Your task to perform on an android device: Go to Maps Image 0: 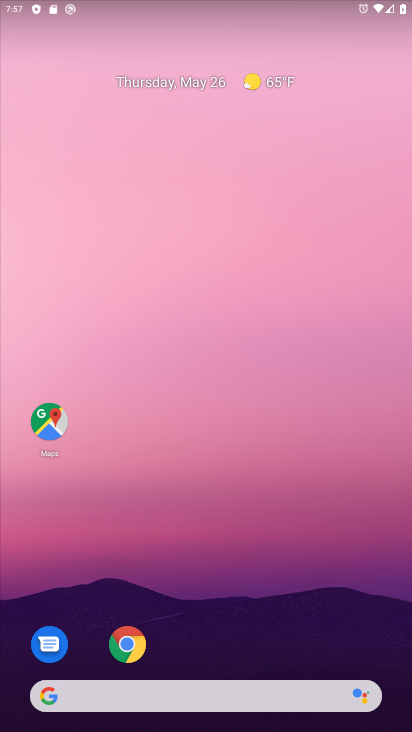
Step 0: click (228, 111)
Your task to perform on an android device: Go to Maps Image 1: 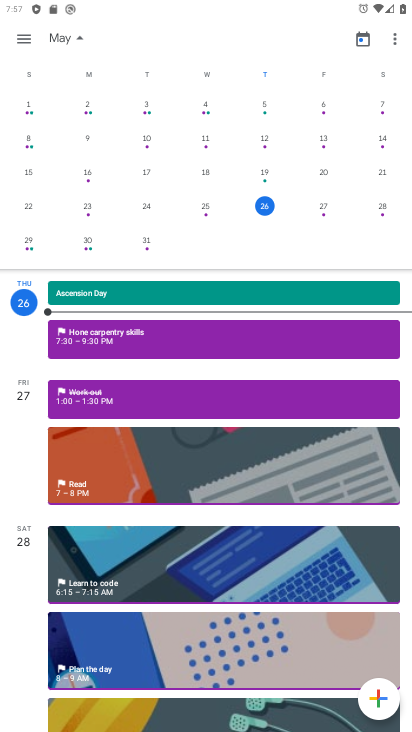
Step 1: press home button
Your task to perform on an android device: Go to Maps Image 2: 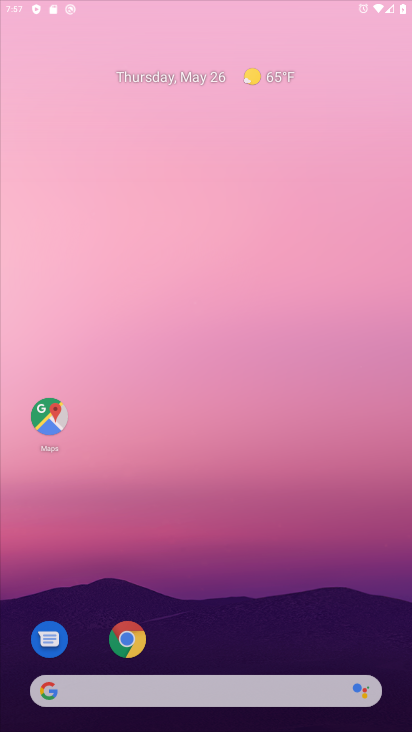
Step 2: drag from (227, 631) to (317, 33)
Your task to perform on an android device: Go to Maps Image 3: 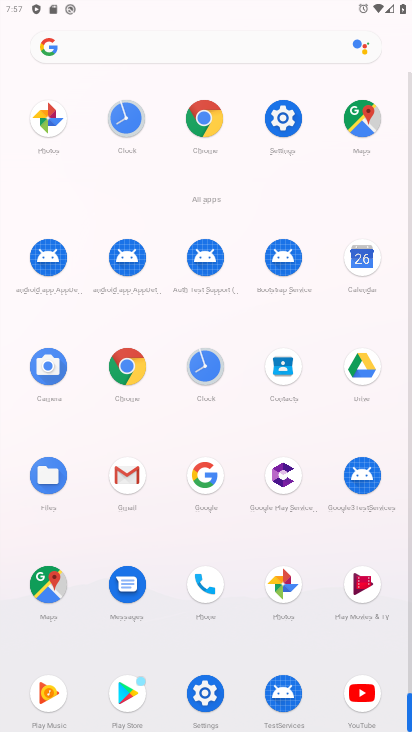
Step 3: click (46, 593)
Your task to perform on an android device: Go to Maps Image 4: 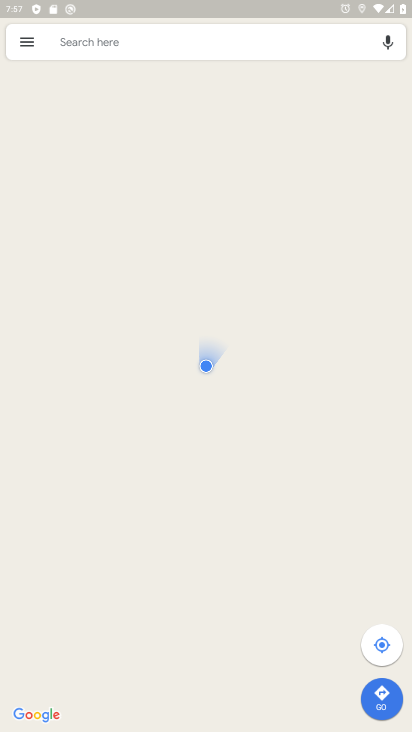
Step 4: task complete